Your task to perform on an android device: Open accessibility settings Image 0: 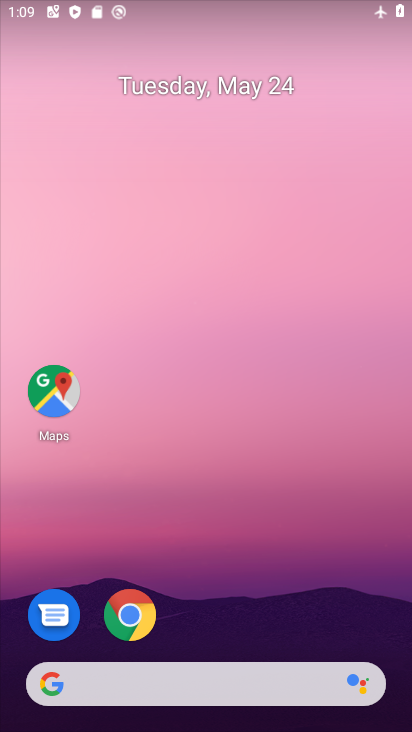
Step 0: drag from (237, 608) to (214, 99)
Your task to perform on an android device: Open accessibility settings Image 1: 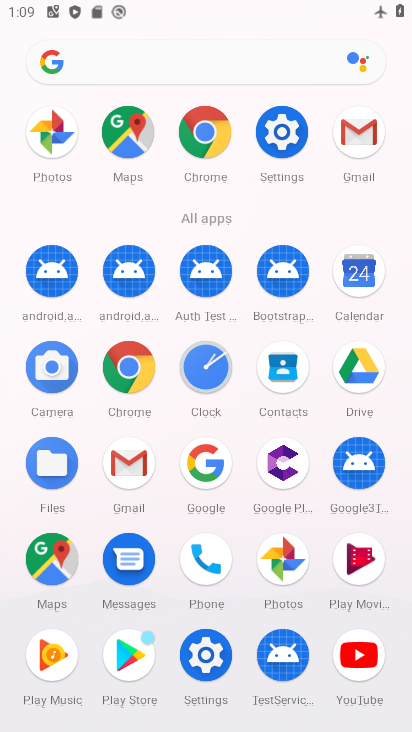
Step 1: click (281, 127)
Your task to perform on an android device: Open accessibility settings Image 2: 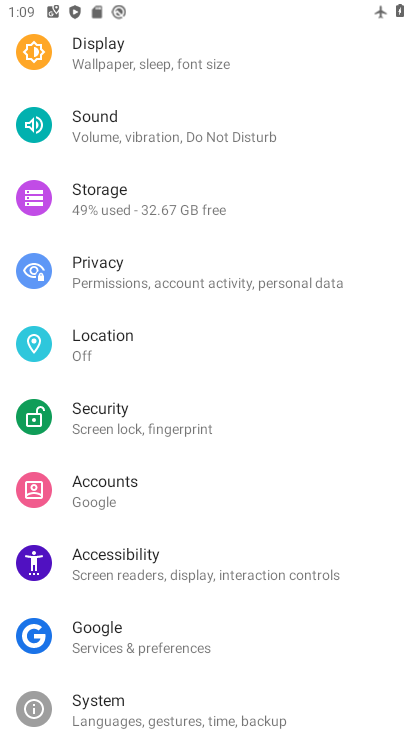
Step 2: click (141, 576)
Your task to perform on an android device: Open accessibility settings Image 3: 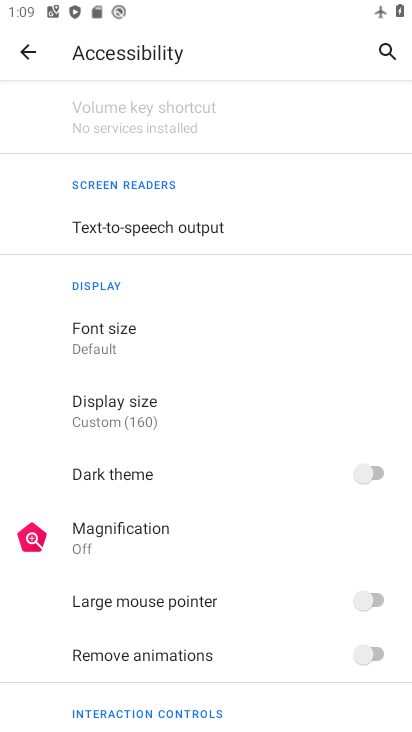
Step 3: task complete